Your task to perform on an android device: Open network settings Image 0: 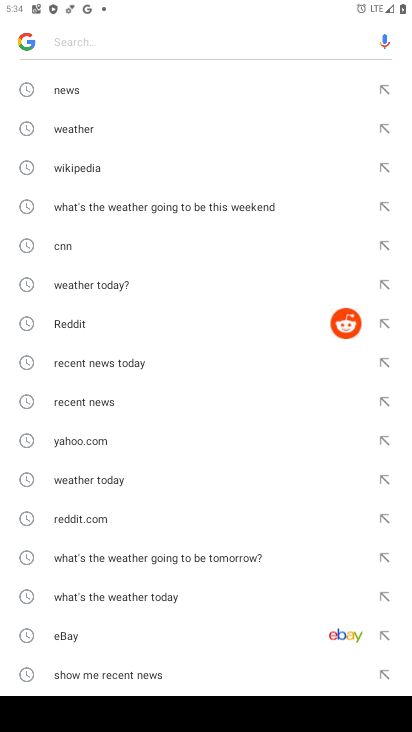
Step 0: press back button
Your task to perform on an android device: Open network settings Image 1: 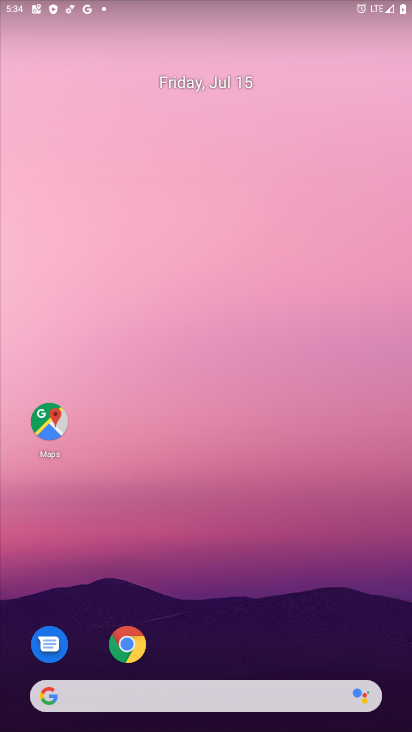
Step 1: drag from (225, 651) to (238, 42)
Your task to perform on an android device: Open network settings Image 2: 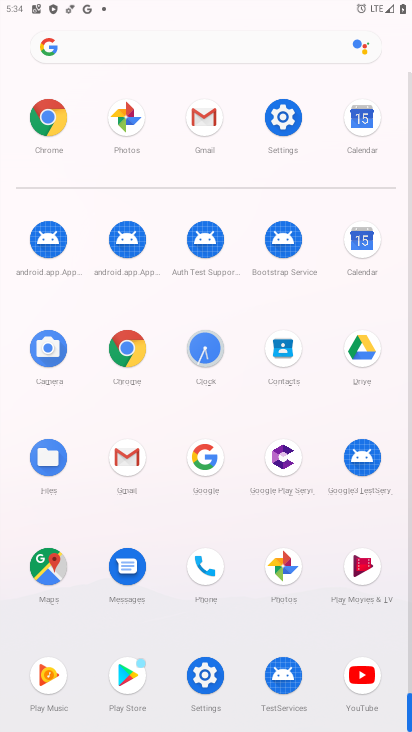
Step 2: click (269, 93)
Your task to perform on an android device: Open network settings Image 3: 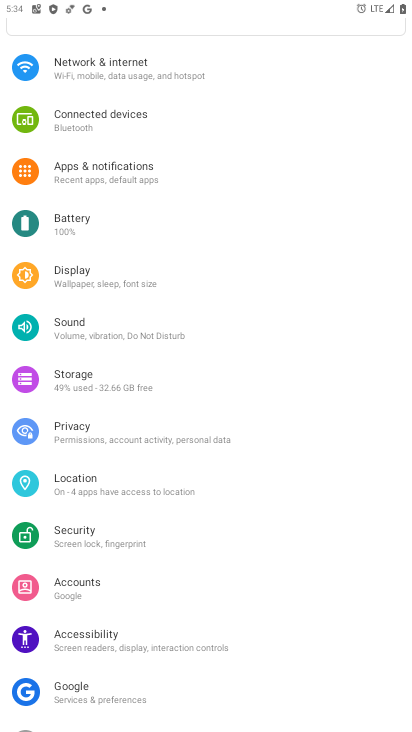
Step 3: click (137, 61)
Your task to perform on an android device: Open network settings Image 4: 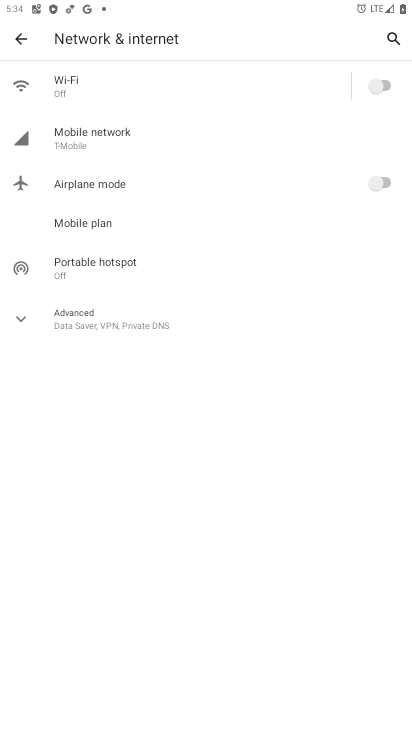
Step 4: click (52, 322)
Your task to perform on an android device: Open network settings Image 5: 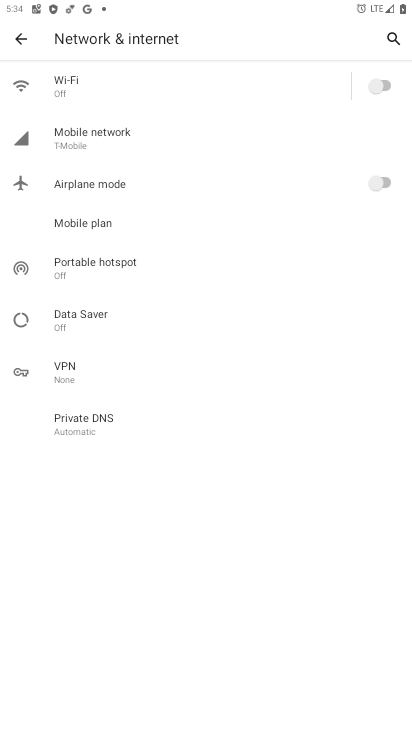
Step 5: task complete